Your task to perform on an android device: turn pop-ups on in chrome Image 0: 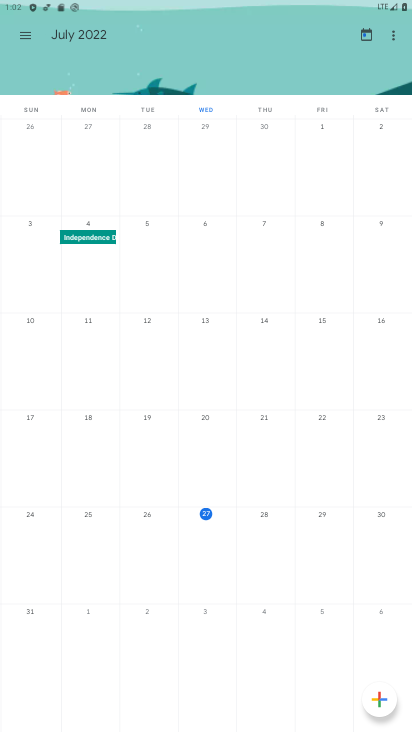
Step 0: press home button
Your task to perform on an android device: turn pop-ups on in chrome Image 1: 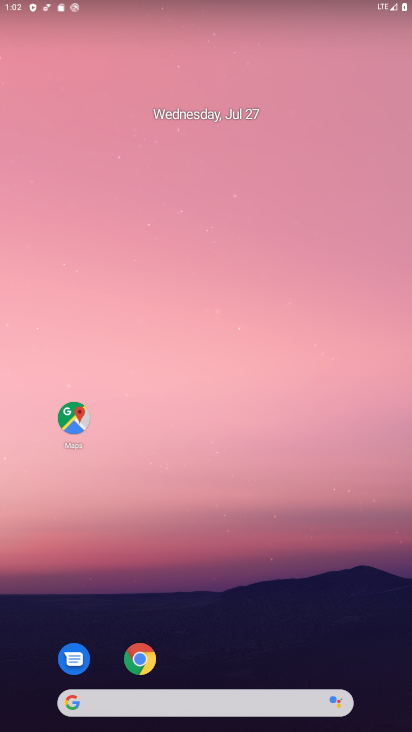
Step 1: click (146, 651)
Your task to perform on an android device: turn pop-ups on in chrome Image 2: 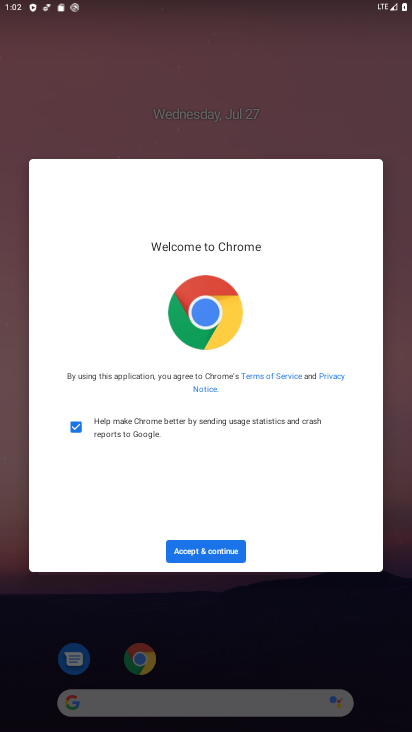
Step 2: click (214, 552)
Your task to perform on an android device: turn pop-ups on in chrome Image 3: 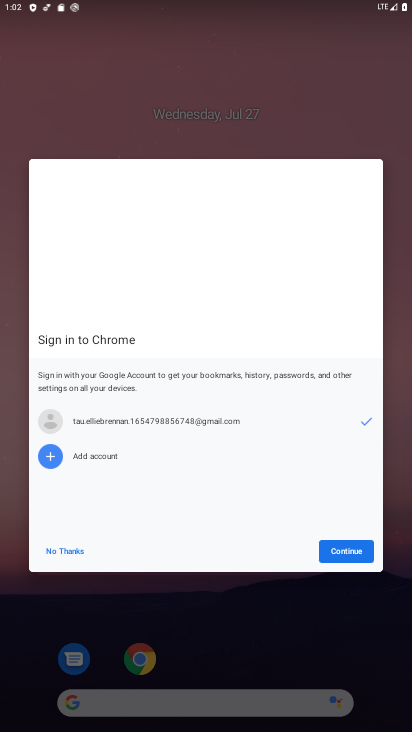
Step 3: click (340, 554)
Your task to perform on an android device: turn pop-ups on in chrome Image 4: 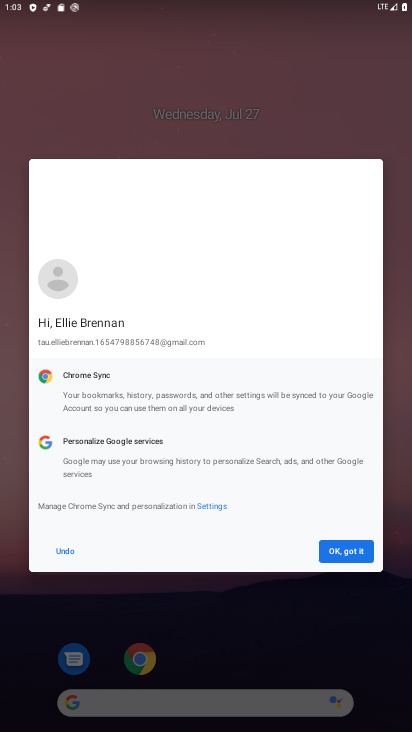
Step 4: click (340, 554)
Your task to perform on an android device: turn pop-ups on in chrome Image 5: 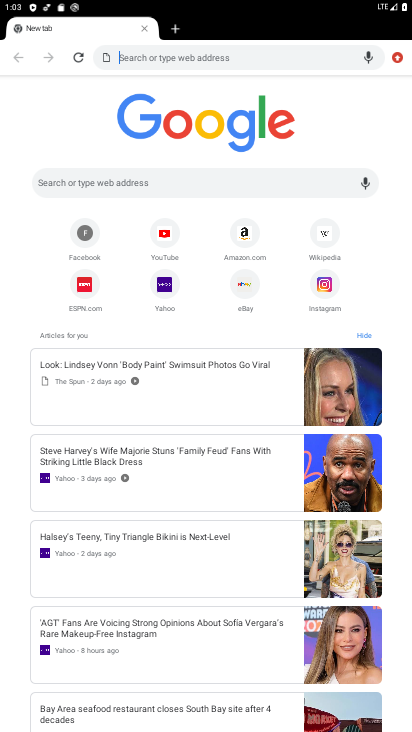
Step 5: click (397, 61)
Your task to perform on an android device: turn pop-ups on in chrome Image 6: 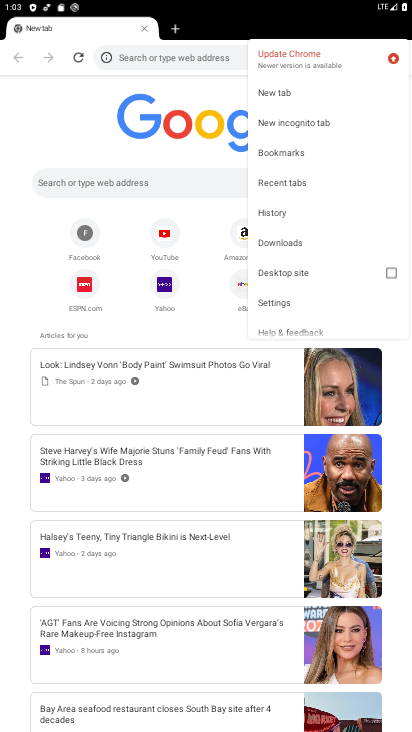
Step 6: click (281, 298)
Your task to perform on an android device: turn pop-ups on in chrome Image 7: 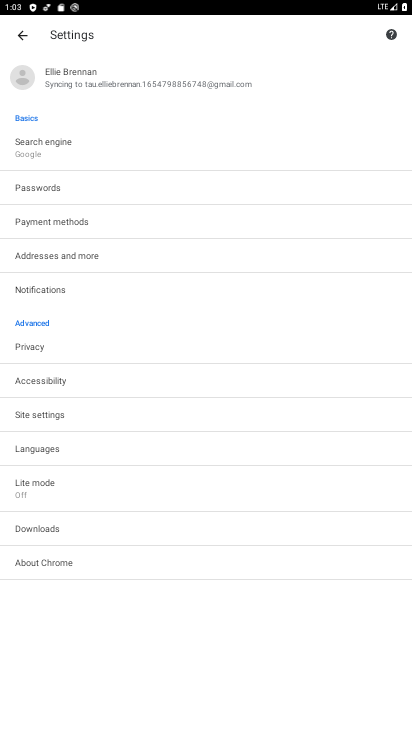
Step 7: click (54, 412)
Your task to perform on an android device: turn pop-ups on in chrome Image 8: 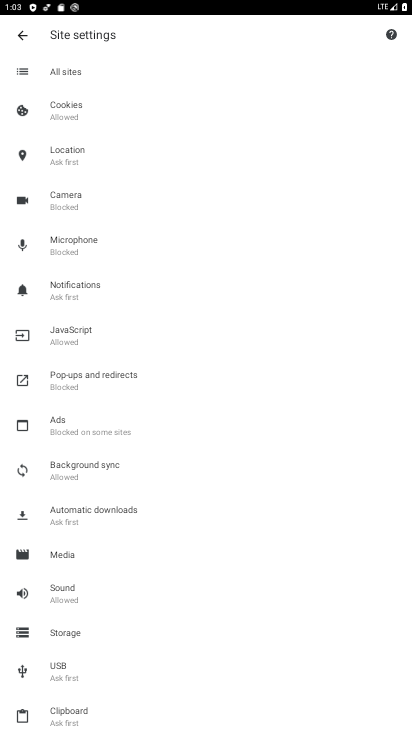
Step 8: click (69, 375)
Your task to perform on an android device: turn pop-ups on in chrome Image 9: 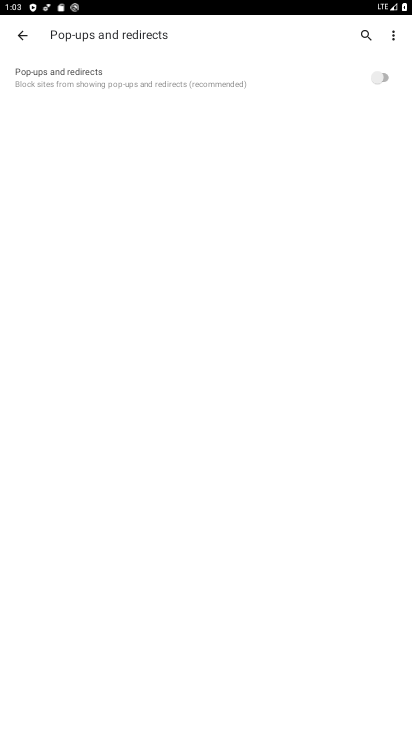
Step 9: click (398, 65)
Your task to perform on an android device: turn pop-ups on in chrome Image 10: 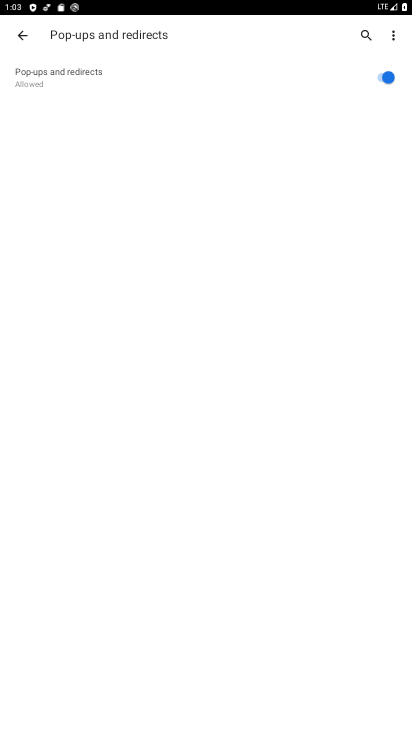
Step 10: task complete